Your task to perform on an android device: What's the weather? Image 0: 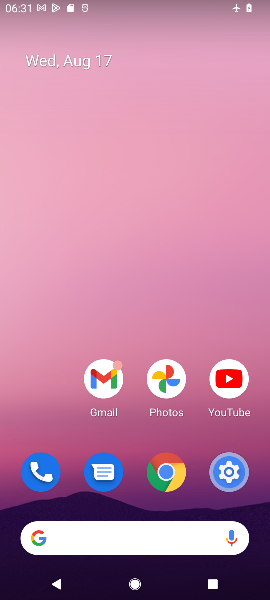
Step 0: click (95, 533)
Your task to perform on an android device: What's the weather? Image 1: 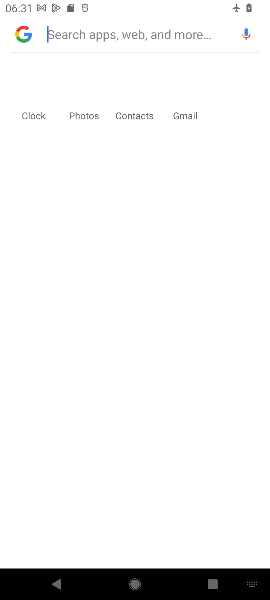
Step 1: type "weather"
Your task to perform on an android device: What's the weather? Image 2: 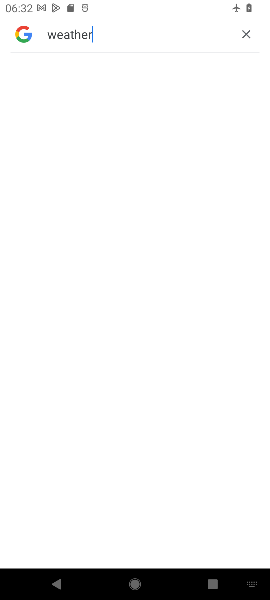
Step 2: task complete